Your task to perform on an android device: Open calendar and show me the first week of next month Image 0: 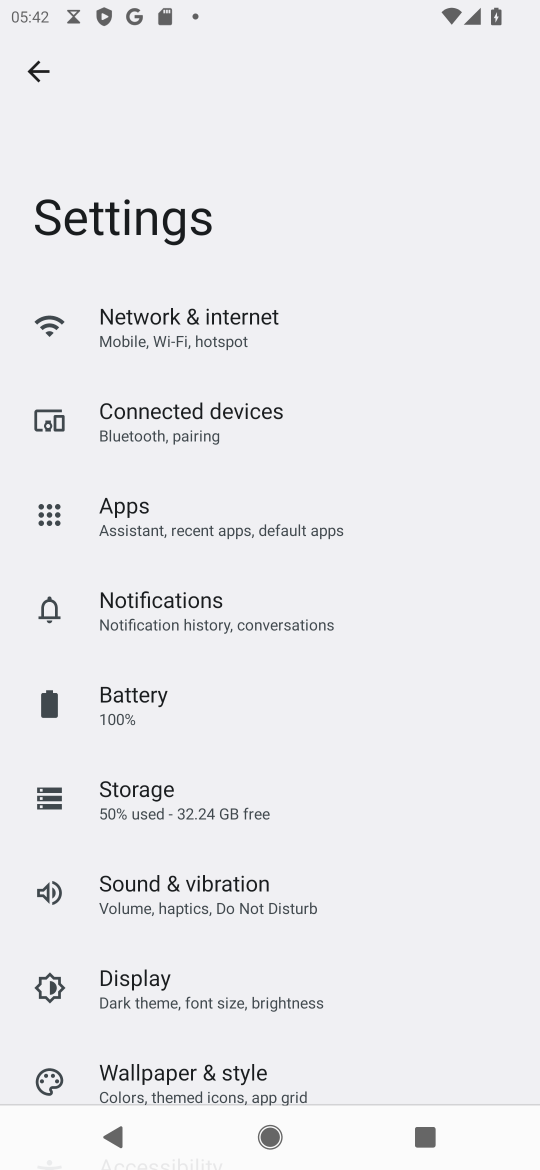
Step 0: press home button
Your task to perform on an android device: Open calendar and show me the first week of next month Image 1: 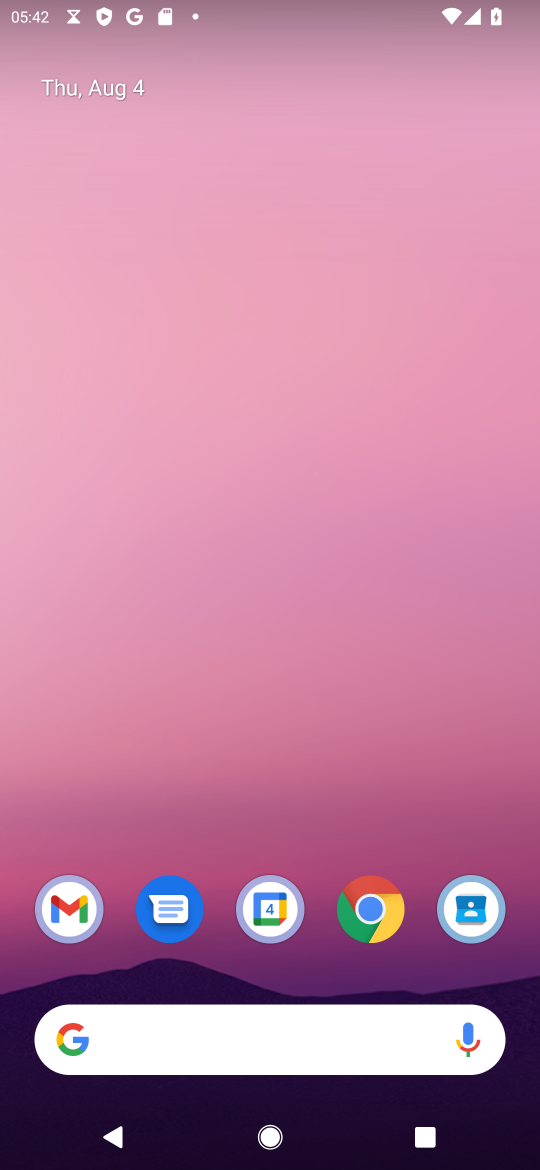
Step 1: click (269, 904)
Your task to perform on an android device: Open calendar and show me the first week of next month Image 2: 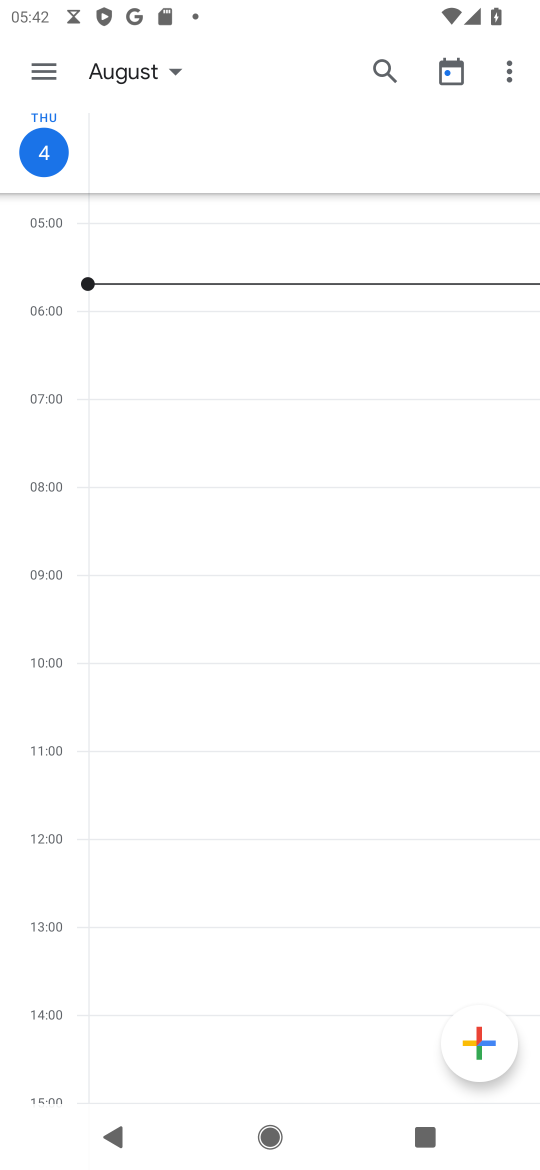
Step 2: click (125, 83)
Your task to perform on an android device: Open calendar and show me the first week of next month Image 3: 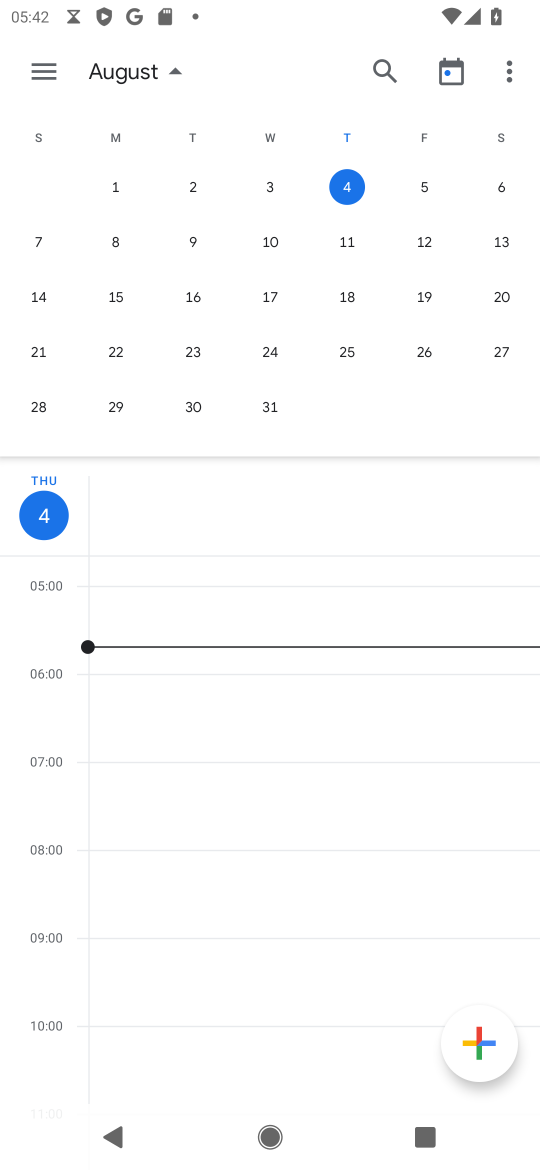
Step 3: drag from (469, 297) to (12, 297)
Your task to perform on an android device: Open calendar and show me the first week of next month Image 4: 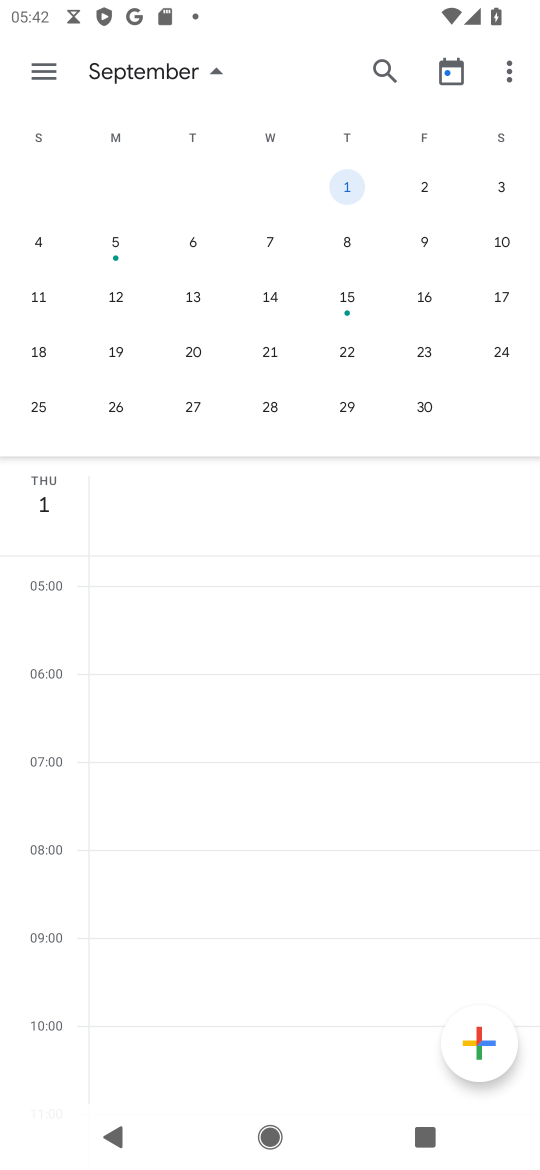
Step 4: click (340, 184)
Your task to perform on an android device: Open calendar and show me the first week of next month Image 5: 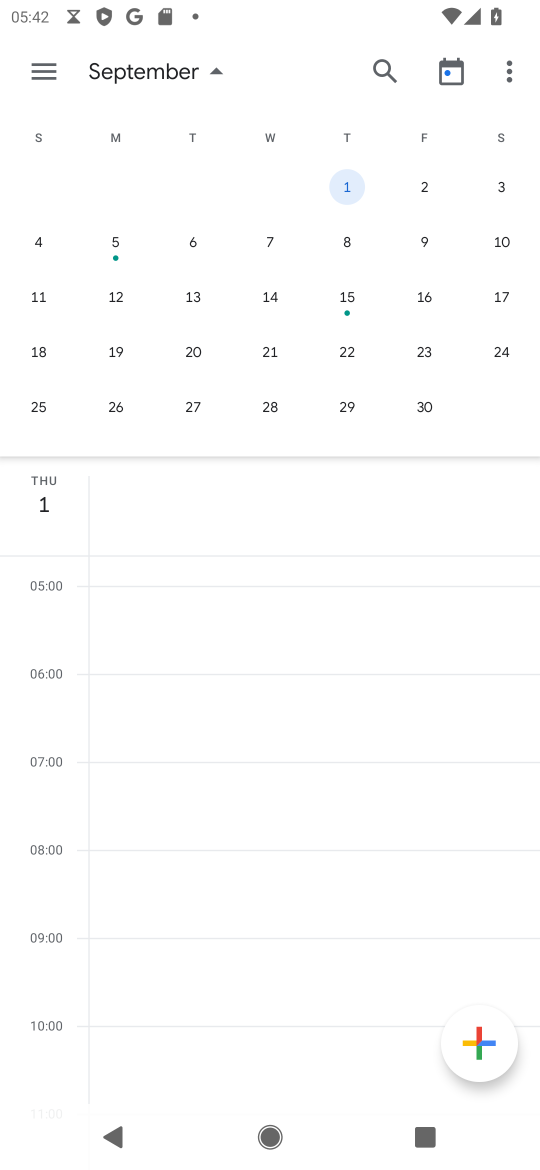
Step 5: click (38, 69)
Your task to perform on an android device: Open calendar and show me the first week of next month Image 6: 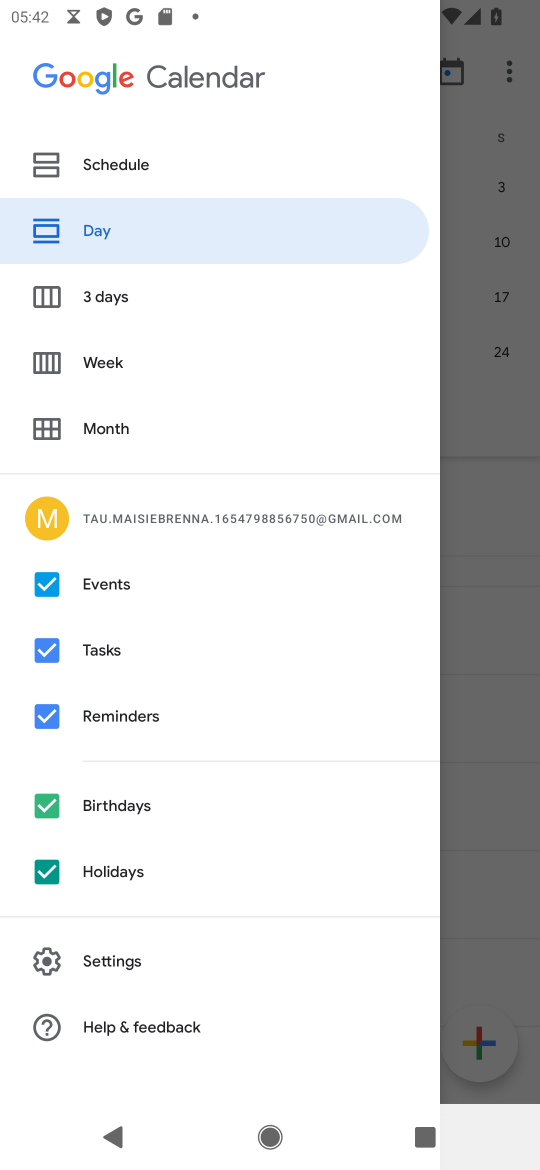
Step 6: click (109, 362)
Your task to perform on an android device: Open calendar and show me the first week of next month Image 7: 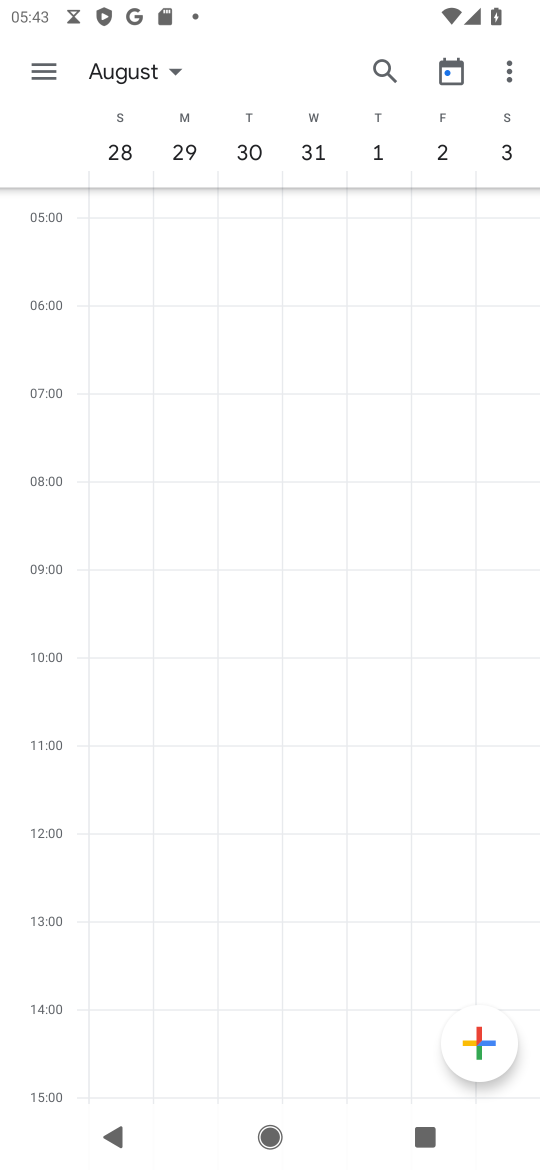
Step 7: task complete